Your task to perform on an android device: turn off data saver in the chrome app Image 0: 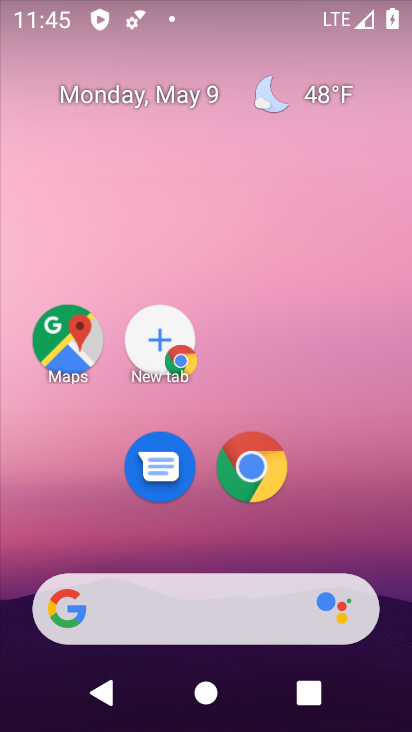
Step 0: drag from (285, 390) to (176, 38)
Your task to perform on an android device: turn off data saver in the chrome app Image 1: 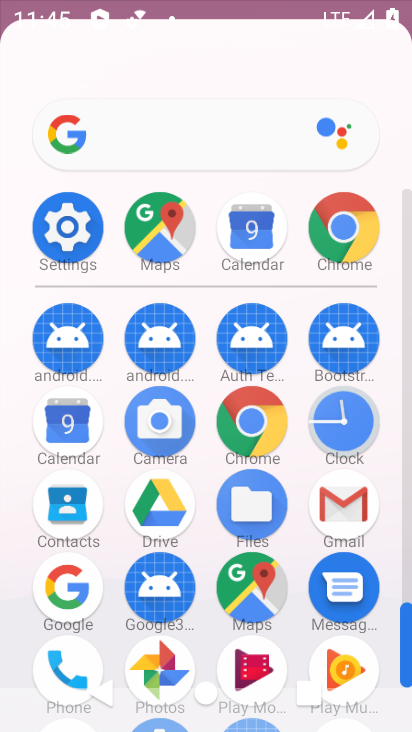
Step 1: drag from (264, 402) to (146, 4)
Your task to perform on an android device: turn off data saver in the chrome app Image 2: 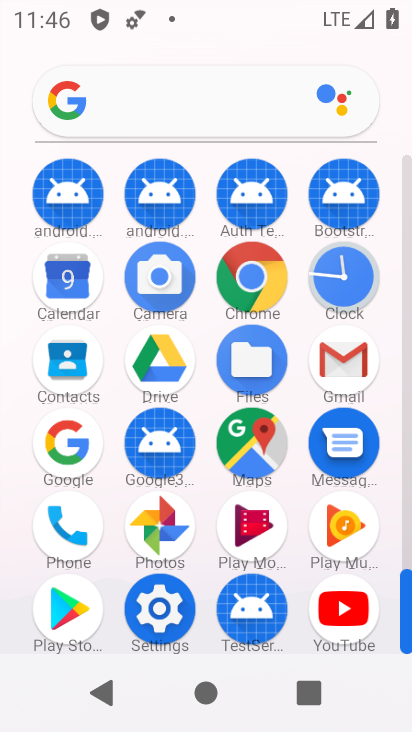
Step 2: click (237, 295)
Your task to perform on an android device: turn off data saver in the chrome app Image 3: 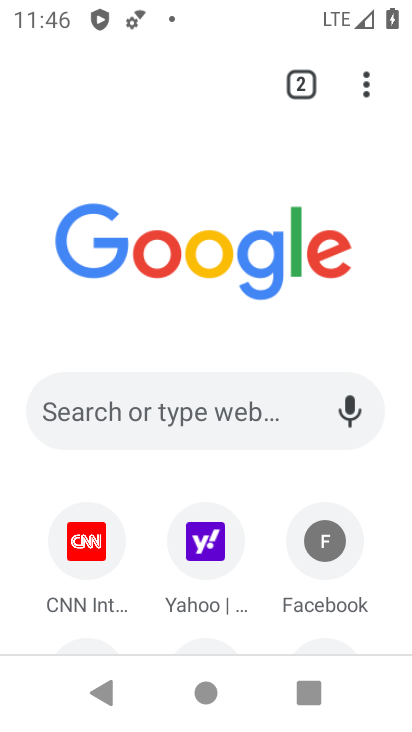
Step 3: drag from (362, 83) to (117, 542)
Your task to perform on an android device: turn off data saver in the chrome app Image 4: 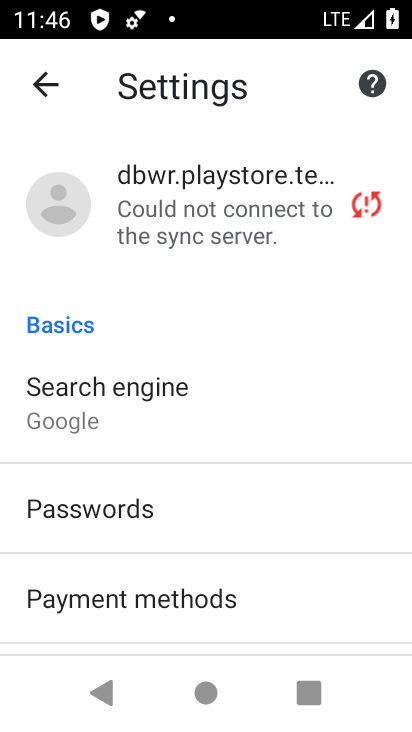
Step 4: drag from (128, 538) to (80, 186)
Your task to perform on an android device: turn off data saver in the chrome app Image 5: 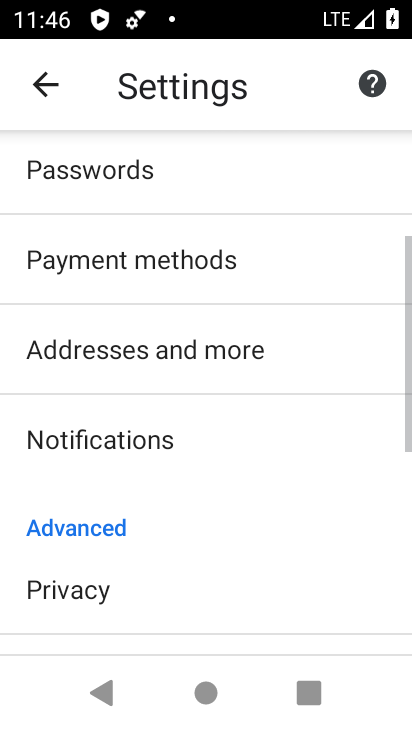
Step 5: drag from (128, 445) to (157, 218)
Your task to perform on an android device: turn off data saver in the chrome app Image 6: 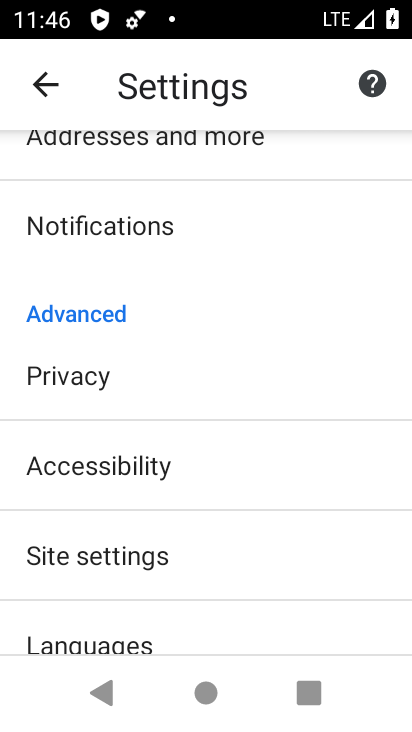
Step 6: drag from (95, 577) to (60, 330)
Your task to perform on an android device: turn off data saver in the chrome app Image 7: 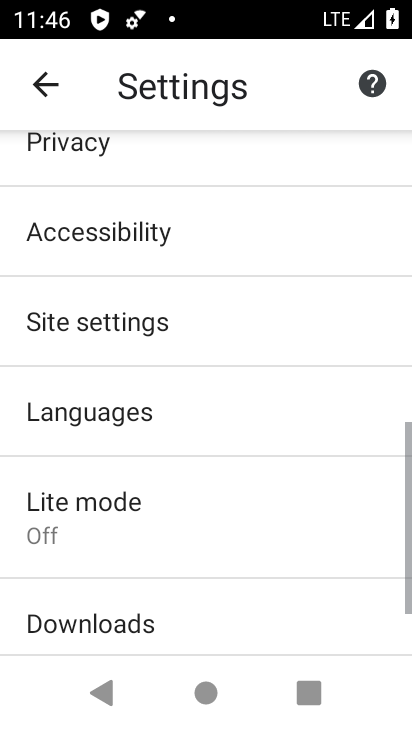
Step 7: drag from (109, 462) to (104, 260)
Your task to perform on an android device: turn off data saver in the chrome app Image 8: 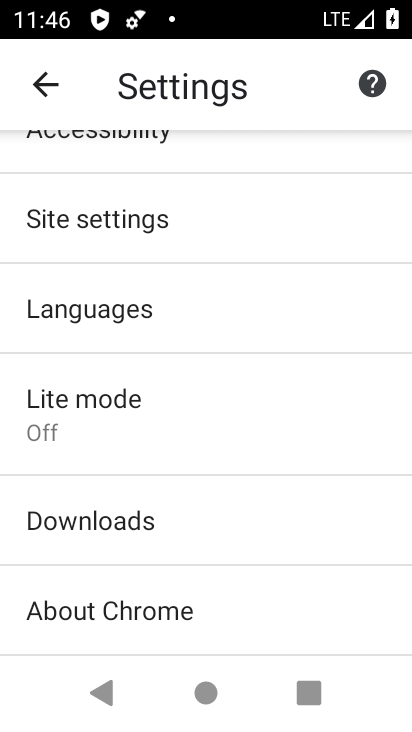
Step 8: click (74, 404)
Your task to perform on an android device: turn off data saver in the chrome app Image 9: 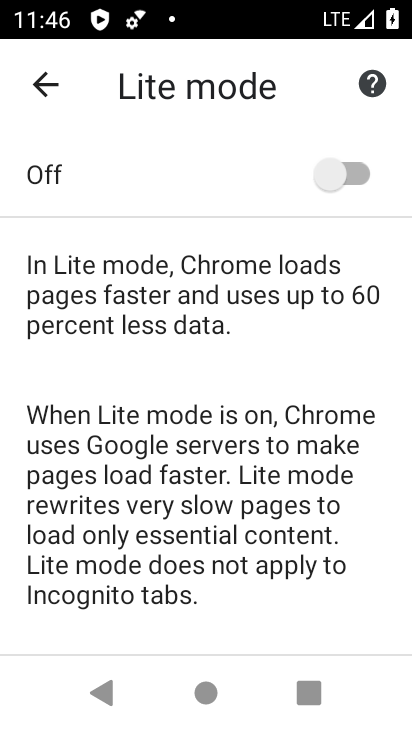
Step 9: task complete